Your task to perform on an android device: add a contact Image 0: 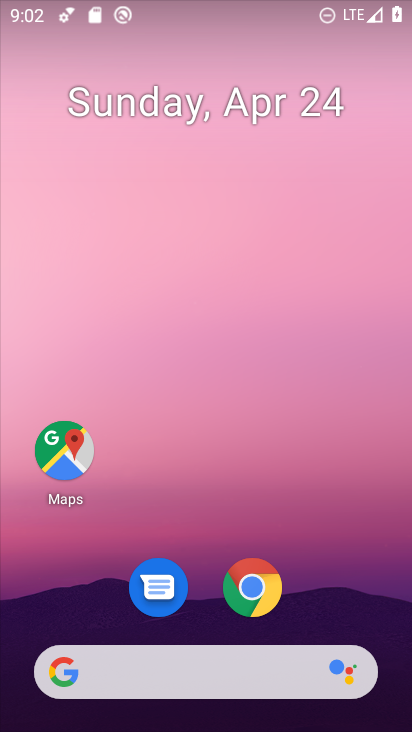
Step 0: drag from (337, 439) to (306, 85)
Your task to perform on an android device: add a contact Image 1: 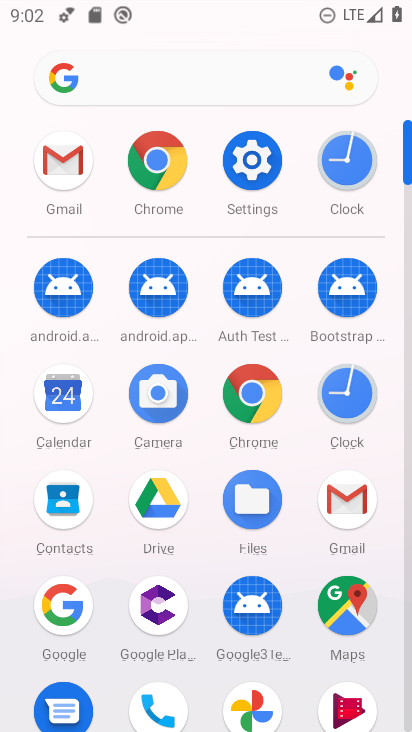
Step 1: click (61, 496)
Your task to perform on an android device: add a contact Image 2: 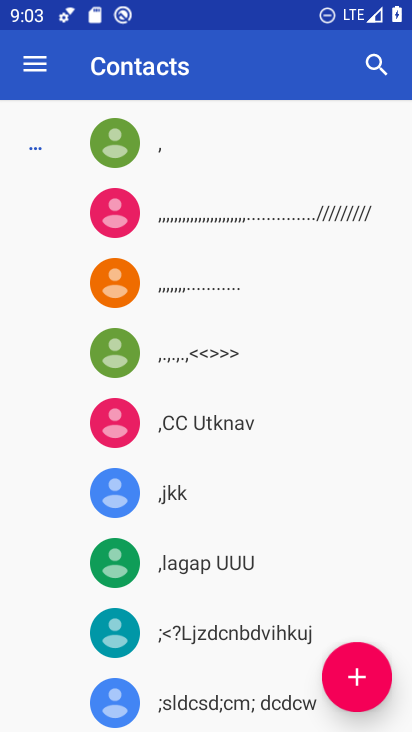
Step 2: click (344, 692)
Your task to perform on an android device: add a contact Image 3: 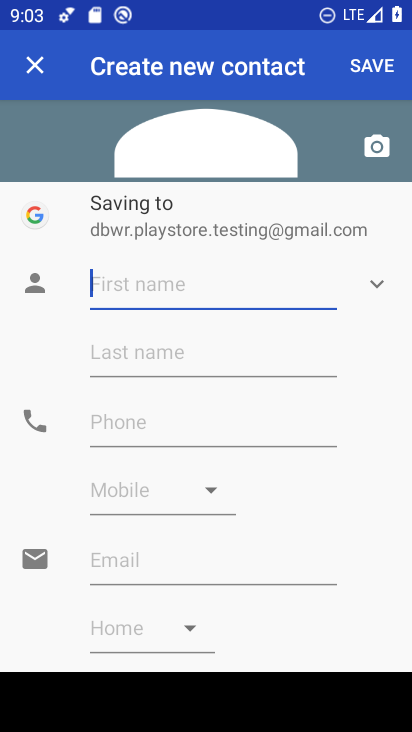
Step 3: type "bolt"
Your task to perform on an android device: add a contact Image 4: 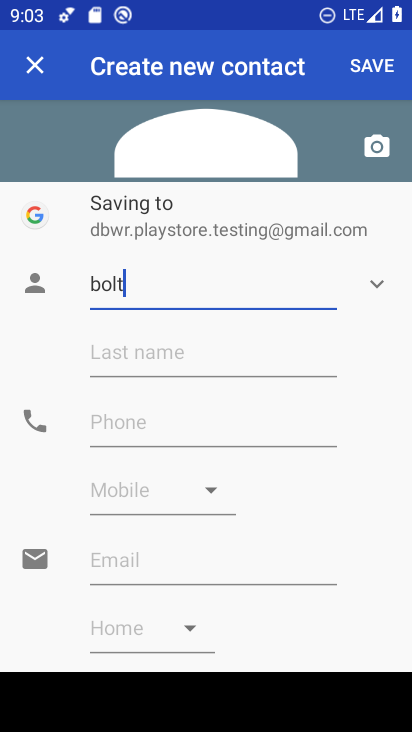
Step 4: click (162, 427)
Your task to perform on an android device: add a contact Image 5: 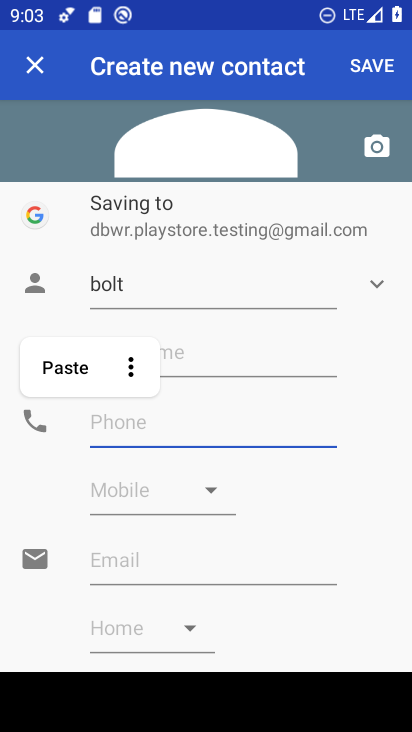
Step 5: type "45958479328"
Your task to perform on an android device: add a contact Image 6: 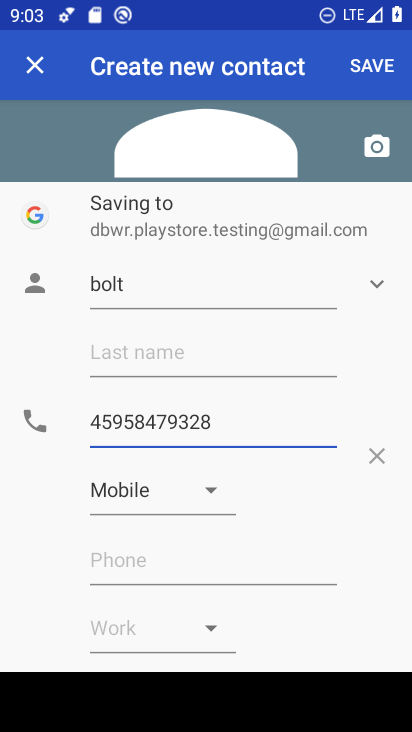
Step 6: click (377, 61)
Your task to perform on an android device: add a contact Image 7: 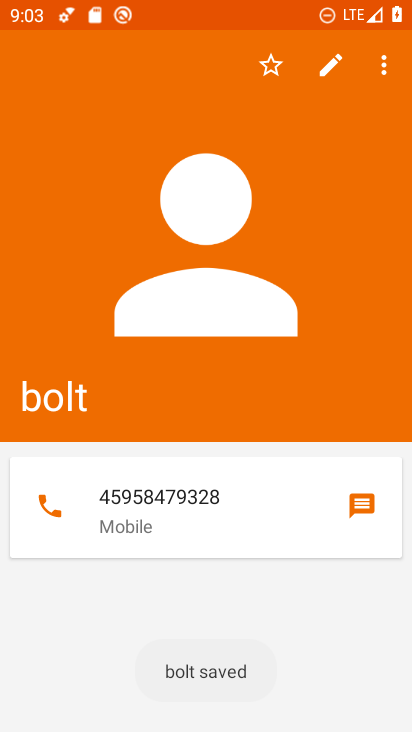
Step 7: task complete